Your task to perform on an android device: Go to Google maps Image 0: 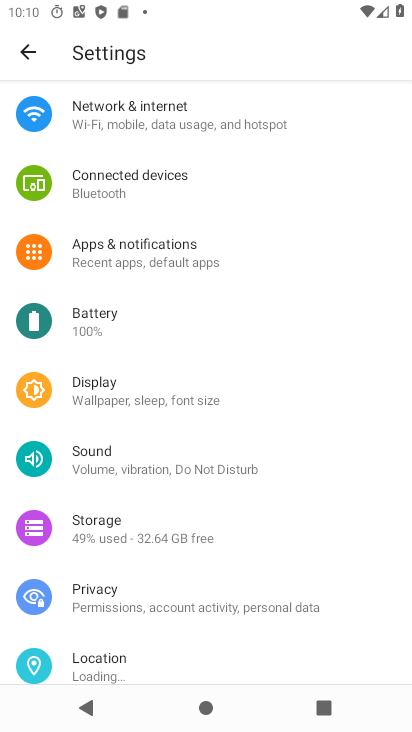
Step 0: press home button
Your task to perform on an android device: Go to Google maps Image 1: 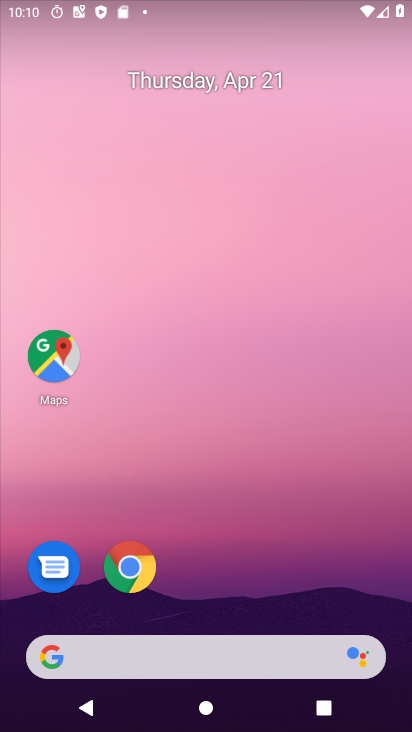
Step 1: drag from (218, 496) to (260, 9)
Your task to perform on an android device: Go to Google maps Image 2: 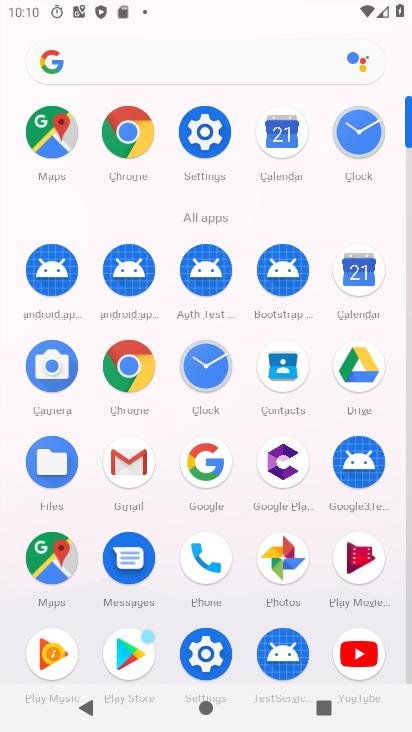
Step 2: click (63, 569)
Your task to perform on an android device: Go to Google maps Image 3: 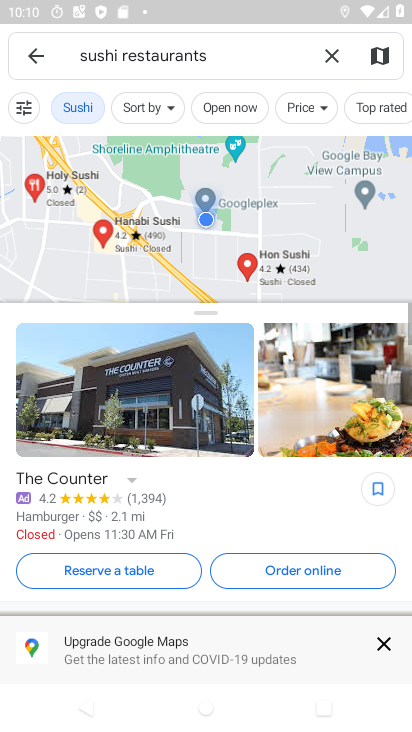
Step 3: task complete